Your task to perform on an android device: add a contact in the contacts app Image 0: 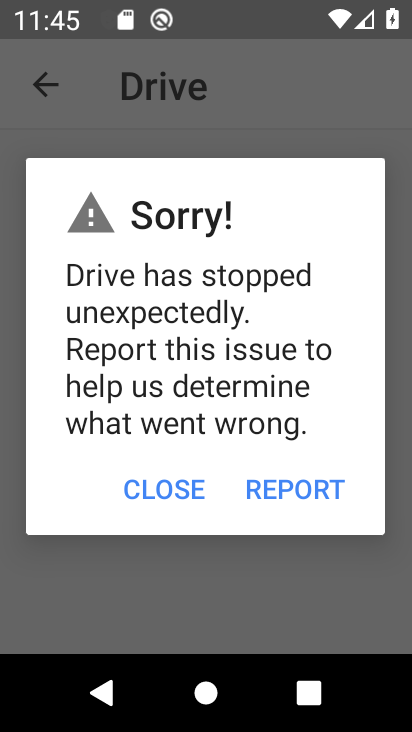
Step 0: press home button
Your task to perform on an android device: add a contact in the contacts app Image 1: 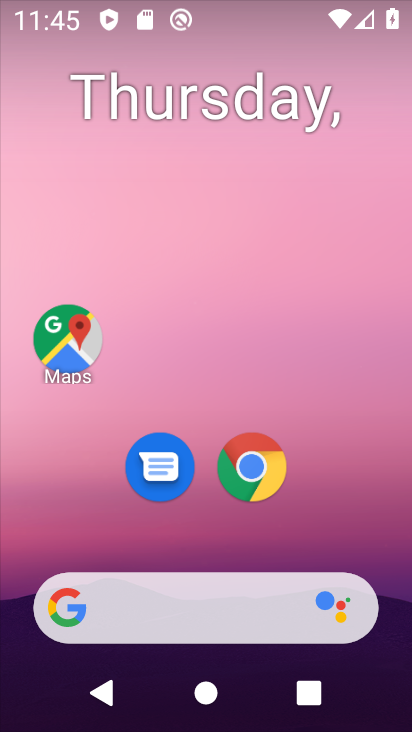
Step 1: drag from (370, 551) to (335, 35)
Your task to perform on an android device: add a contact in the contacts app Image 2: 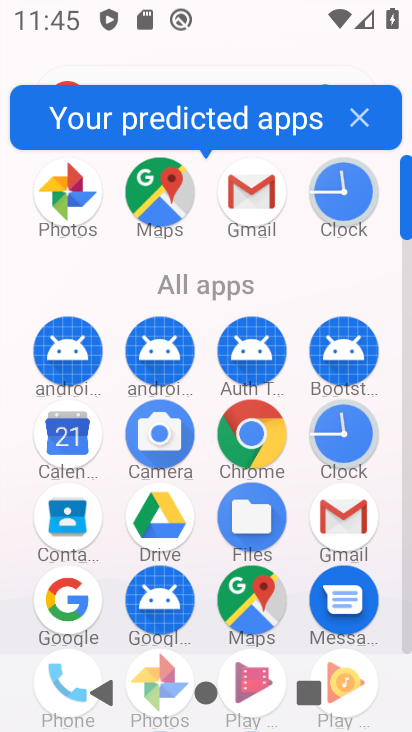
Step 2: click (406, 641)
Your task to perform on an android device: add a contact in the contacts app Image 3: 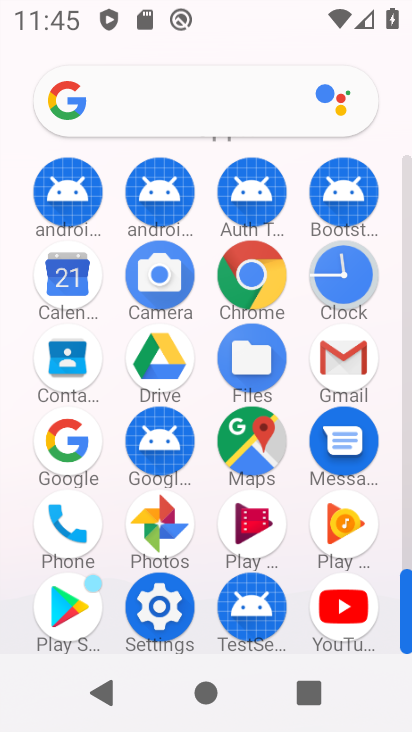
Step 3: click (66, 358)
Your task to perform on an android device: add a contact in the contacts app Image 4: 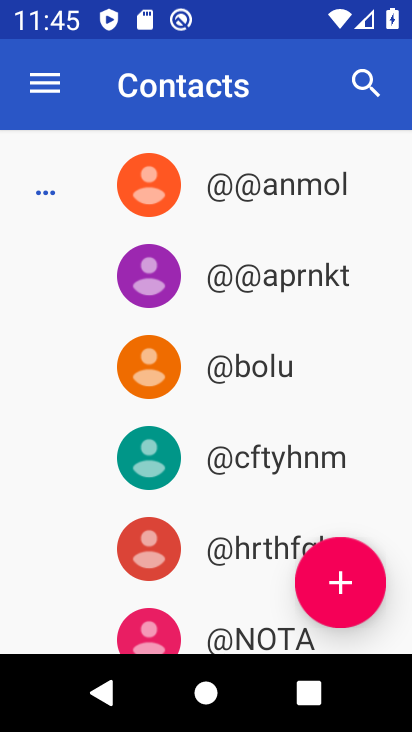
Step 4: click (349, 583)
Your task to perform on an android device: add a contact in the contacts app Image 5: 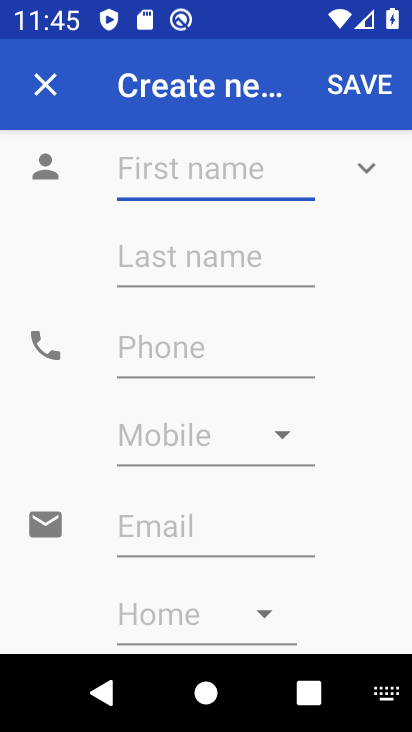
Step 5: type "shsjdkd"
Your task to perform on an android device: add a contact in the contacts app Image 6: 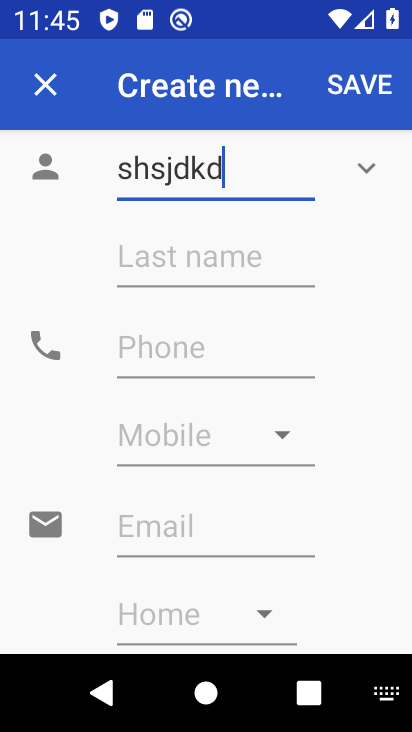
Step 6: click (206, 360)
Your task to perform on an android device: add a contact in the contacts app Image 7: 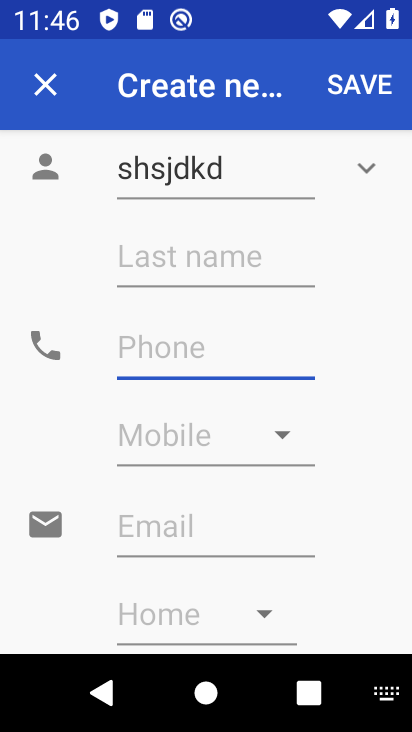
Step 7: type "935850609"
Your task to perform on an android device: add a contact in the contacts app Image 8: 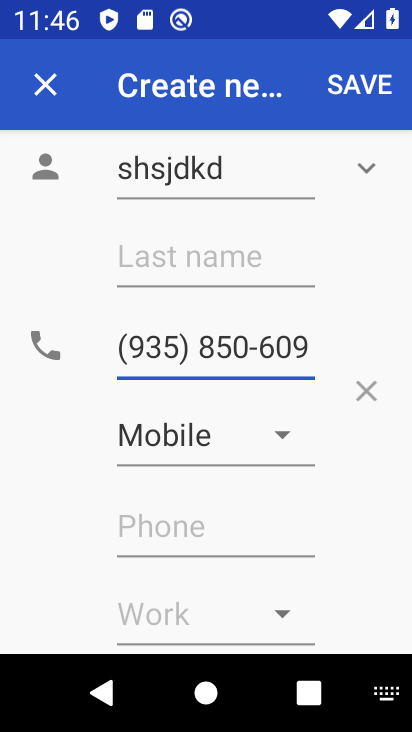
Step 8: click (278, 421)
Your task to perform on an android device: add a contact in the contacts app Image 9: 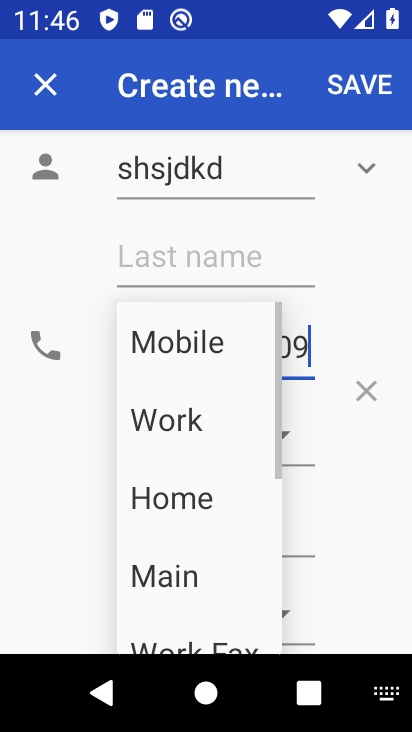
Step 9: click (163, 420)
Your task to perform on an android device: add a contact in the contacts app Image 10: 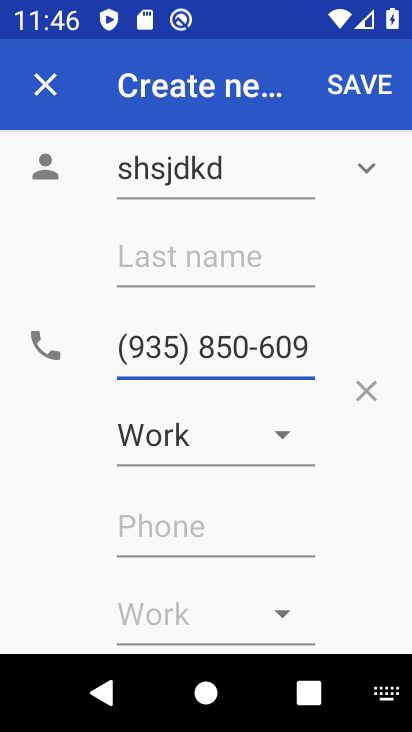
Step 10: click (351, 87)
Your task to perform on an android device: add a contact in the contacts app Image 11: 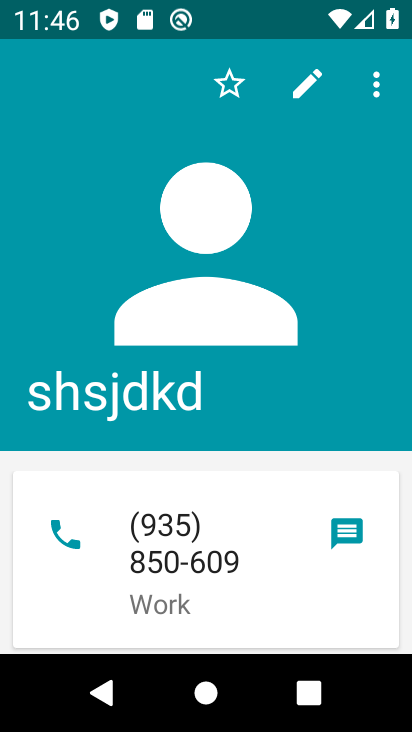
Step 11: task complete